Your task to perform on an android device: Search for Mexican restaurants on Maps Image 0: 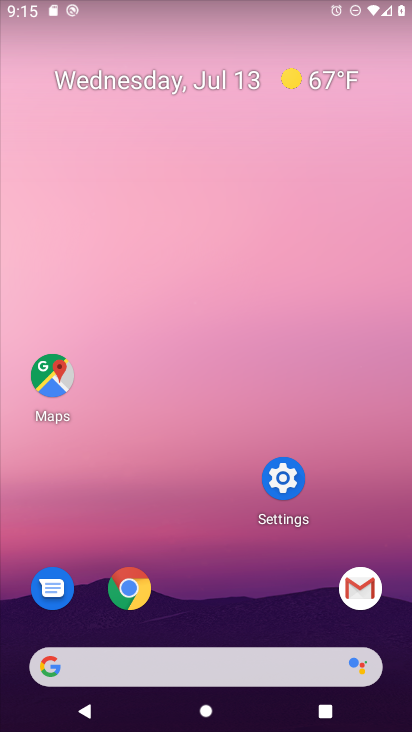
Step 0: click (37, 359)
Your task to perform on an android device: Search for Mexican restaurants on Maps Image 1: 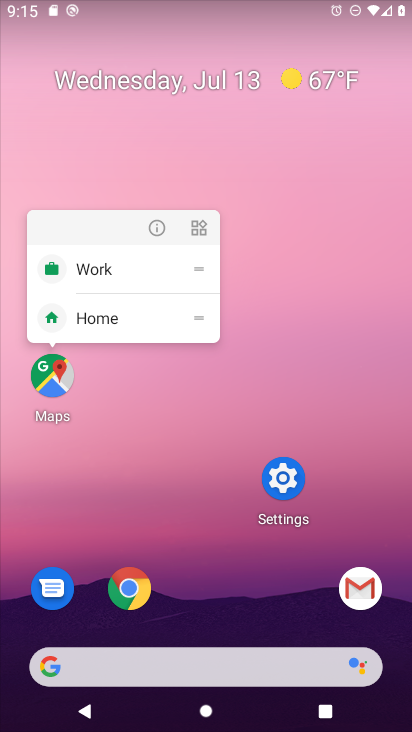
Step 1: click (58, 380)
Your task to perform on an android device: Search for Mexican restaurants on Maps Image 2: 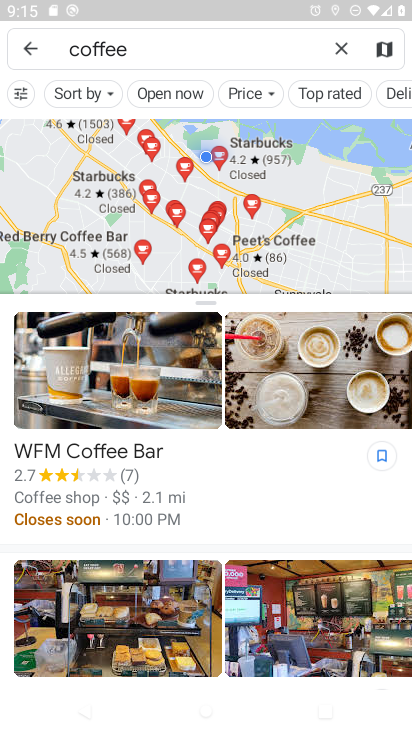
Step 2: click (340, 51)
Your task to perform on an android device: Search for Mexican restaurants on Maps Image 3: 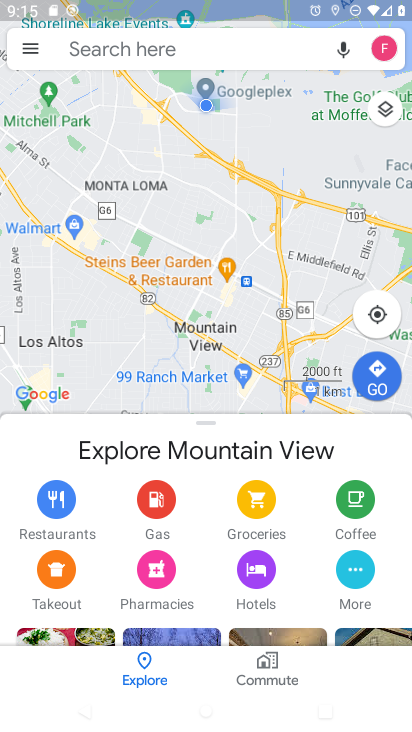
Step 3: click (115, 49)
Your task to perform on an android device: Search for Mexican restaurants on Maps Image 4: 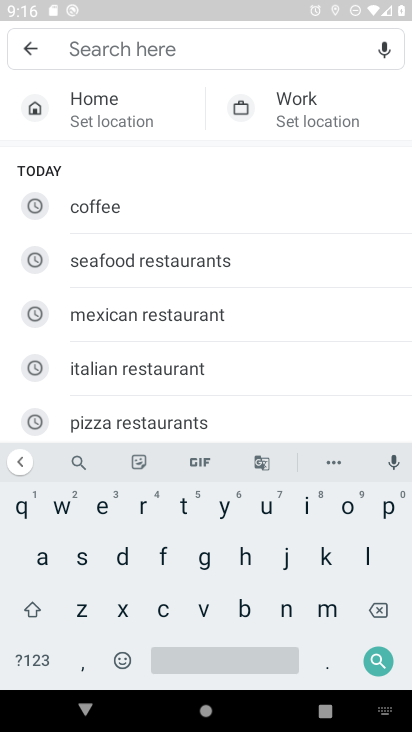
Step 4: click (185, 320)
Your task to perform on an android device: Search for Mexican restaurants on Maps Image 5: 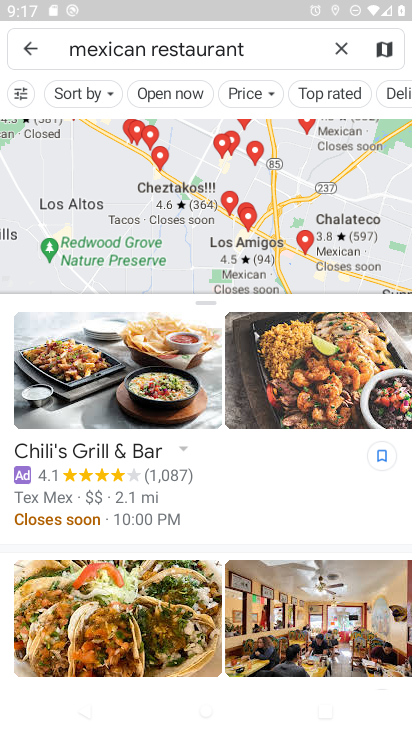
Step 5: task complete